Your task to perform on an android device: toggle notifications settings in the gmail app Image 0: 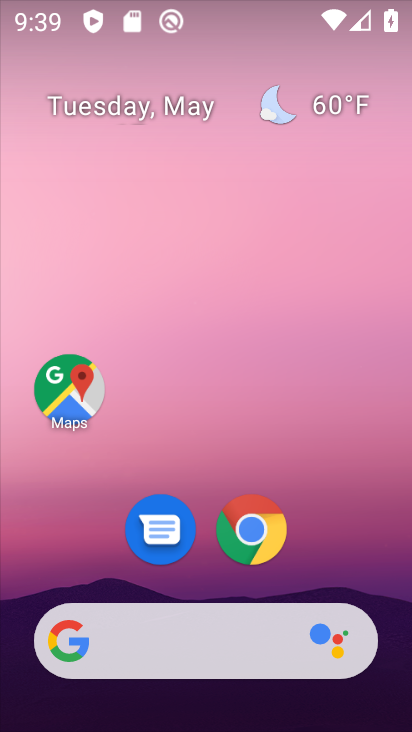
Step 0: drag from (142, 587) to (142, 347)
Your task to perform on an android device: toggle notifications settings in the gmail app Image 1: 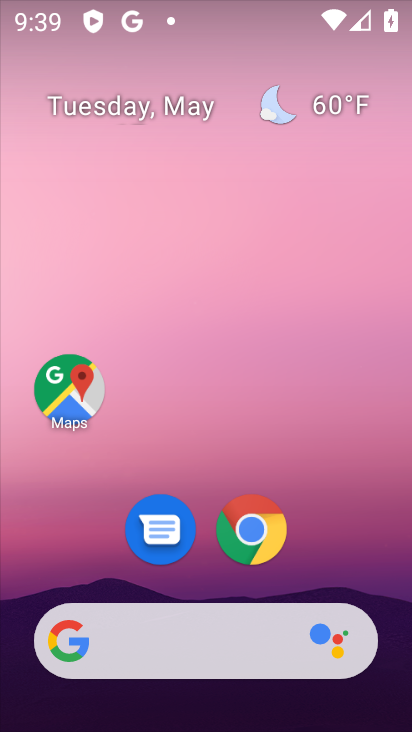
Step 1: drag from (171, 570) to (171, 163)
Your task to perform on an android device: toggle notifications settings in the gmail app Image 2: 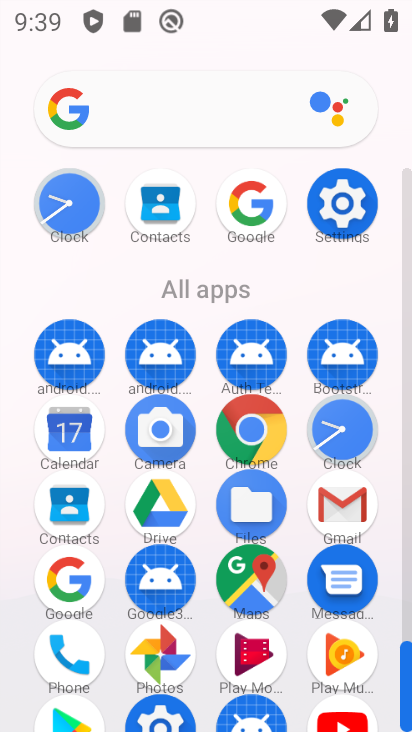
Step 2: click (345, 513)
Your task to perform on an android device: toggle notifications settings in the gmail app Image 3: 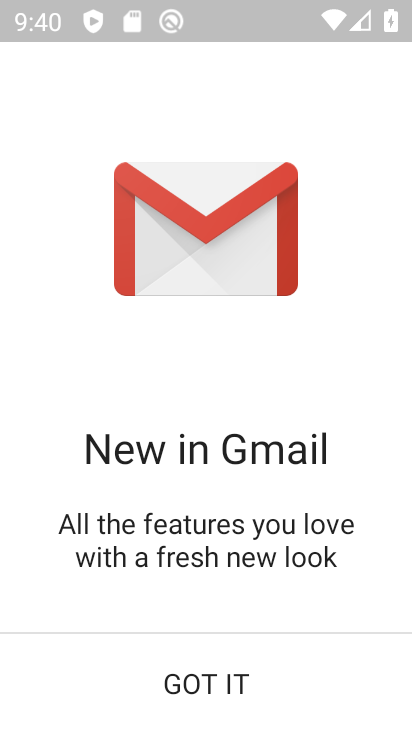
Step 3: click (173, 657)
Your task to perform on an android device: toggle notifications settings in the gmail app Image 4: 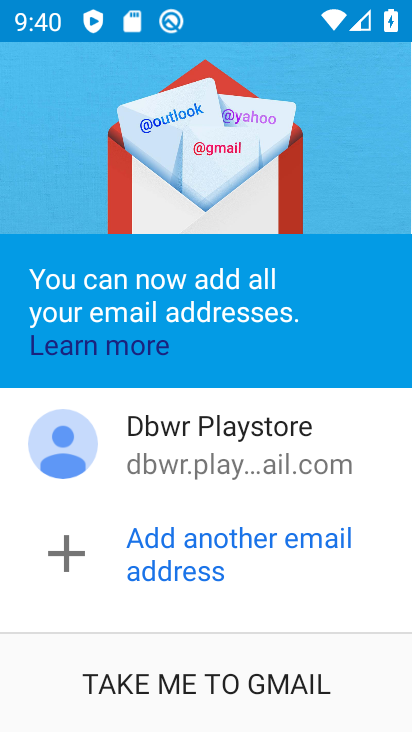
Step 4: click (139, 684)
Your task to perform on an android device: toggle notifications settings in the gmail app Image 5: 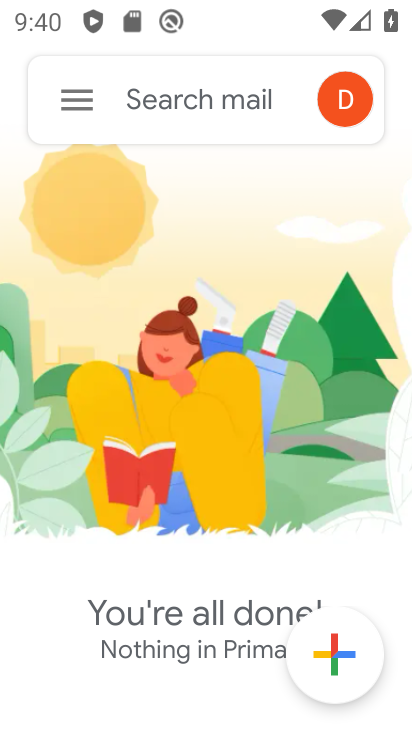
Step 5: click (75, 86)
Your task to perform on an android device: toggle notifications settings in the gmail app Image 6: 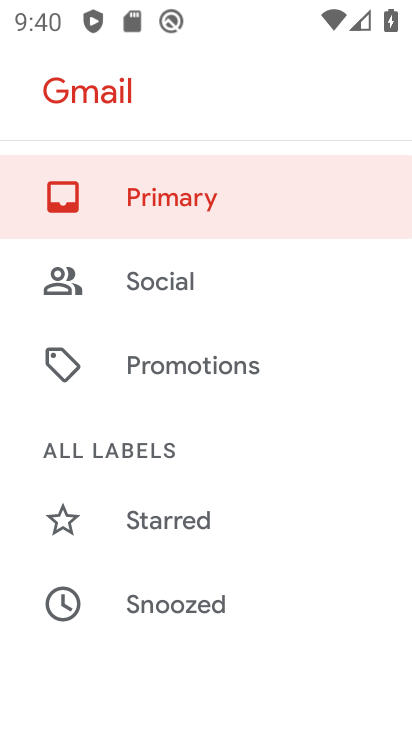
Step 6: drag from (175, 669) to (161, 277)
Your task to perform on an android device: toggle notifications settings in the gmail app Image 7: 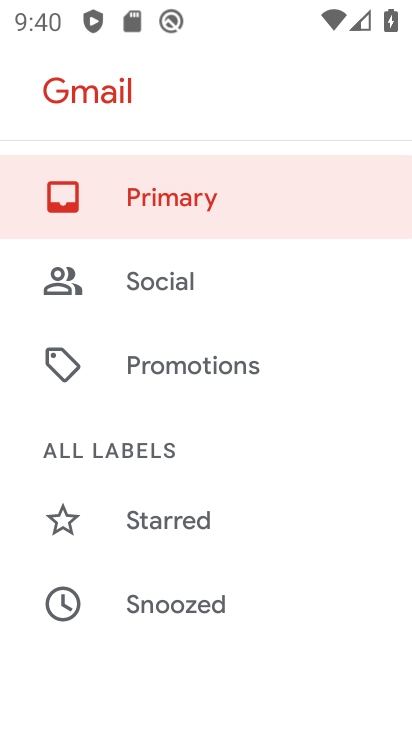
Step 7: drag from (201, 645) to (171, 167)
Your task to perform on an android device: toggle notifications settings in the gmail app Image 8: 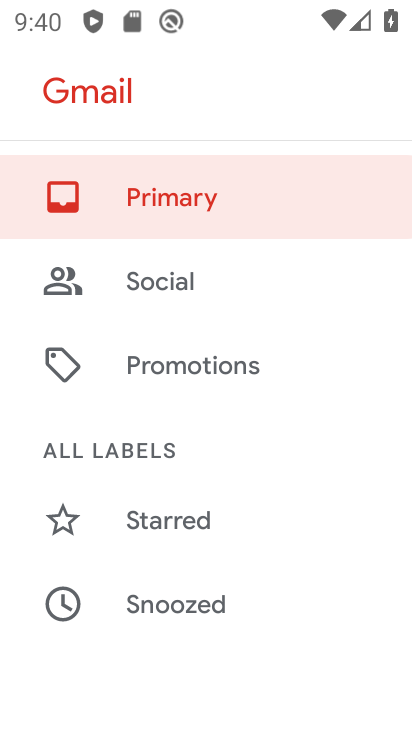
Step 8: drag from (164, 530) to (197, 119)
Your task to perform on an android device: toggle notifications settings in the gmail app Image 9: 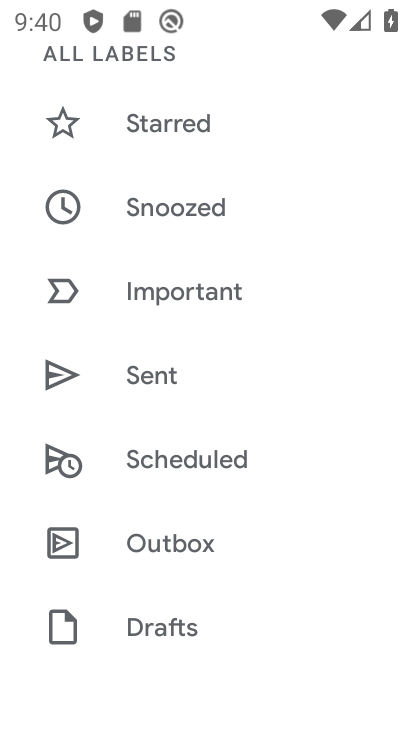
Step 9: drag from (180, 536) to (195, 167)
Your task to perform on an android device: toggle notifications settings in the gmail app Image 10: 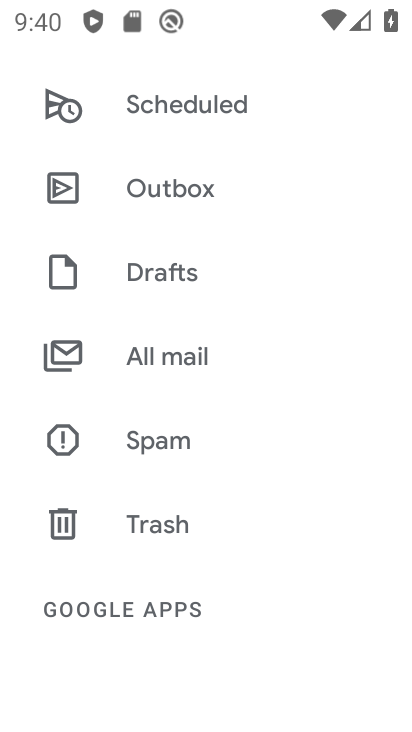
Step 10: drag from (188, 609) to (207, 267)
Your task to perform on an android device: toggle notifications settings in the gmail app Image 11: 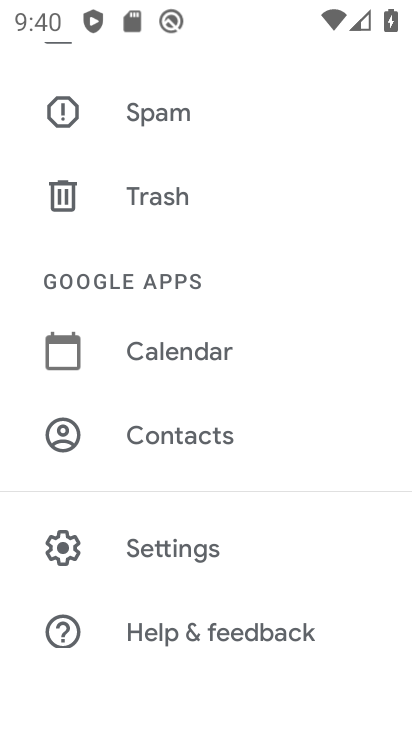
Step 11: click (154, 536)
Your task to perform on an android device: toggle notifications settings in the gmail app Image 12: 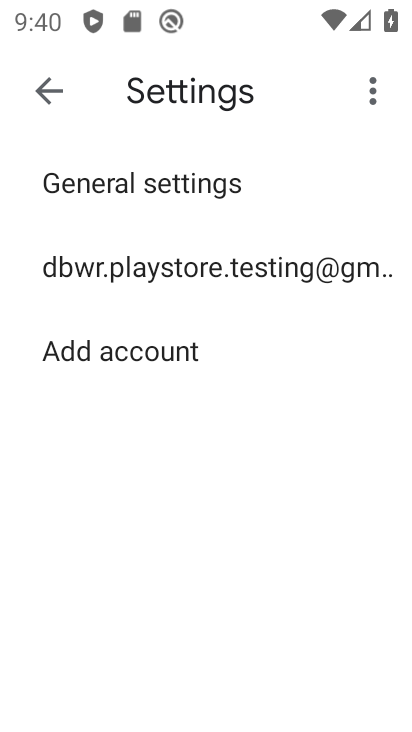
Step 12: click (170, 265)
Your task to perform on an android device: toggle notifications settings in the gmail app Image 13: 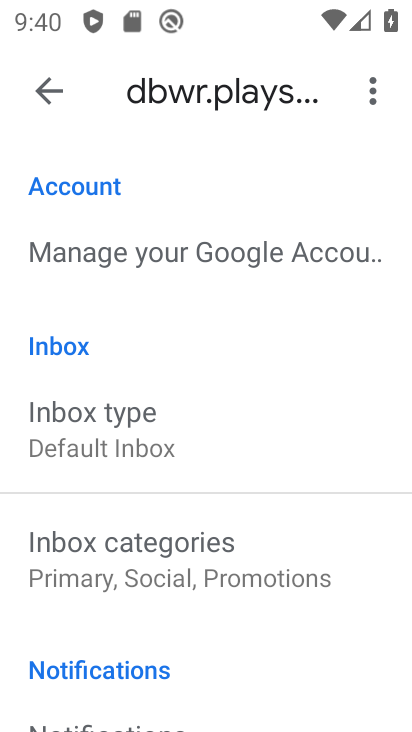
Step 13: click (31, 95)
Your task to perform on an android device: toggle notifications settings in the gmail app Image 14: 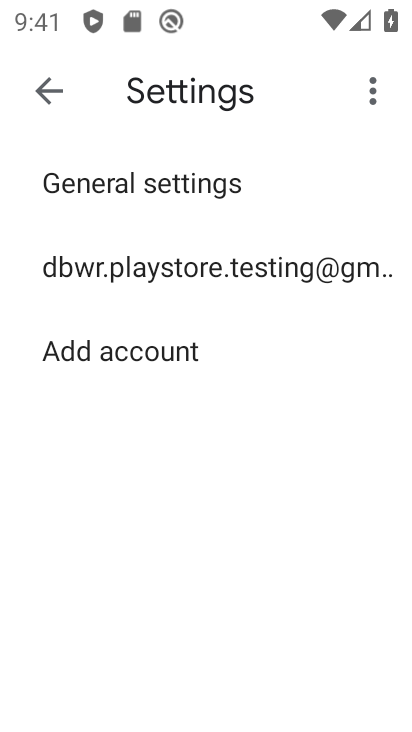
Step 14: click (74, 182)
Your task to perform on an android device: toggle notifications settings in the gmail app Image 15: 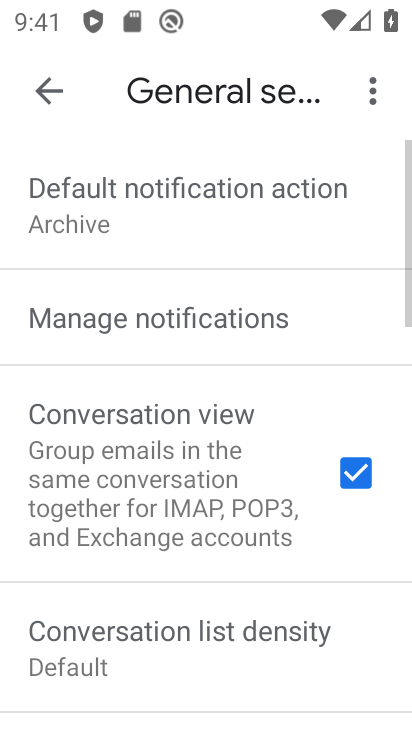
Step 15: click (96, 318)
Your task to perform on an android device: toggle notifications settings in the gmail app Image 16: 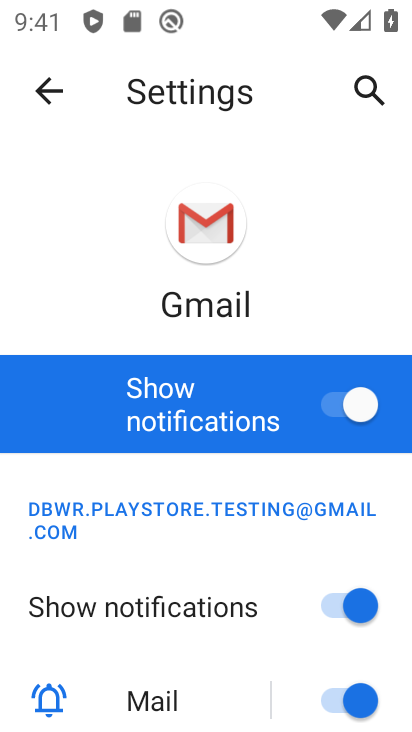
Step 16: click (348, 405)
Your task to perform on an android device: toggle notifications settings in the gmail app Image 17: 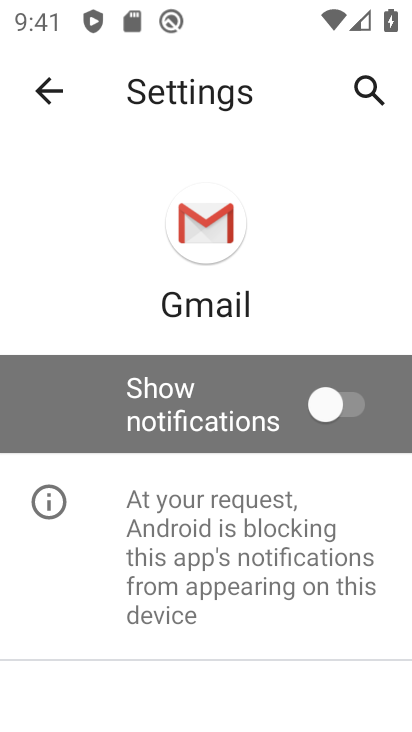
Step 17: task complete